Your task to perform on an android device: all mails in gmail Image 0: 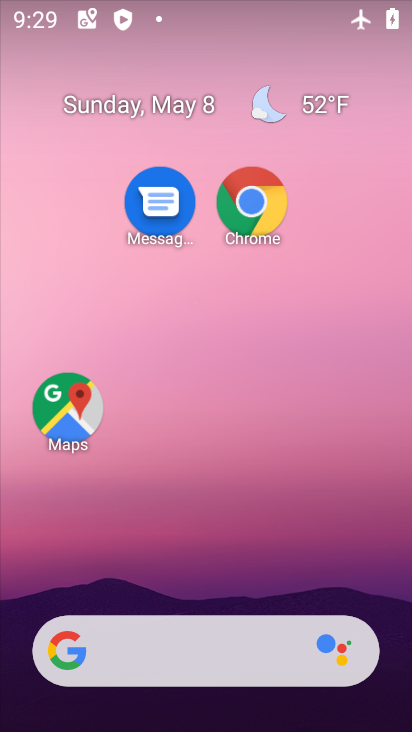
Step 0: drag from (237, 596) to (383, 6)
Your task to perform on an android device: all mails in gmail Image 1: 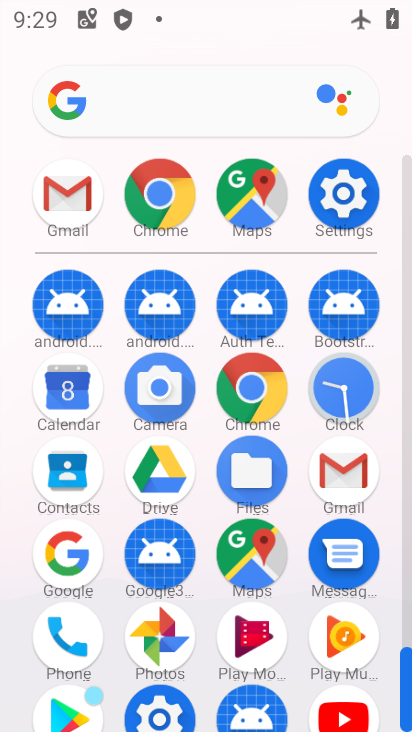
Step 1: click (362, 479)
Your task to perform on an android device: all mails in gmail Image 2: 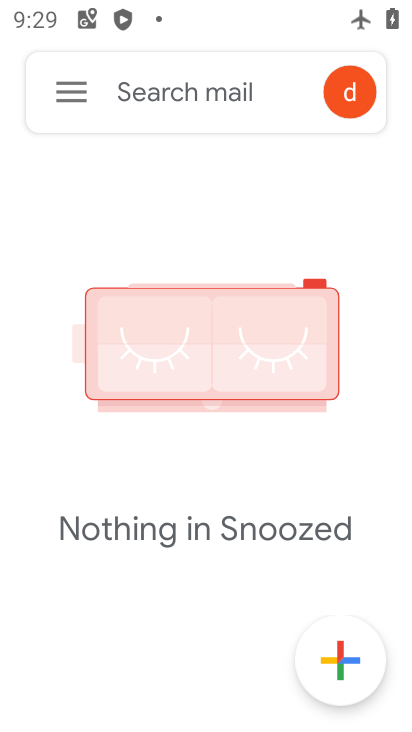
Step 2: click (103, 95)
Your task to perform on an android device: all mails in gmail Image 3: 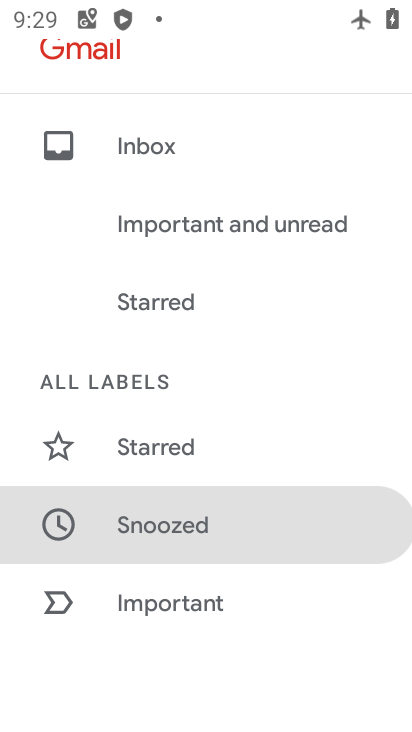
Step 3: drag from (165, 462) to (159, 112)
Your task to perform on an android device: all mails in gmail Image 4: 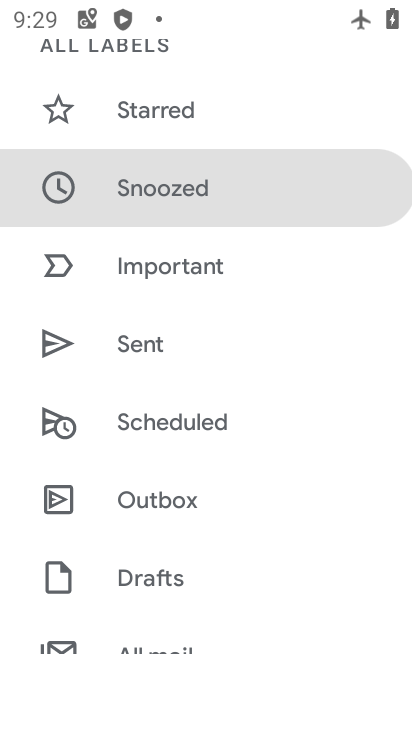
Step 4: click (131, 635)
Your task to perform on an android device: all mails in gmail Image 5: 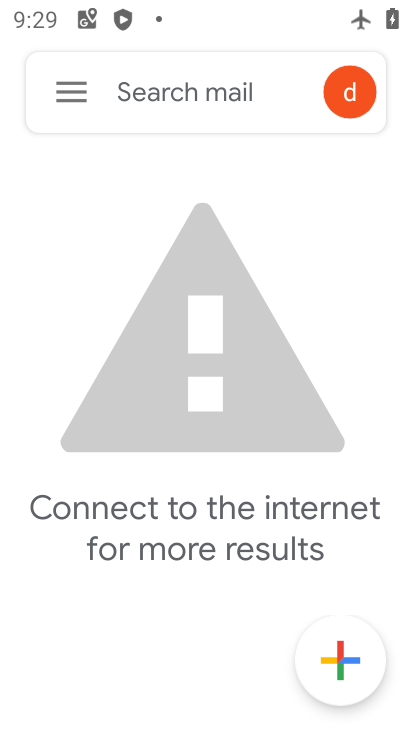
Step 5: task complete